Your task to perform on an android device: Open calendar and show me the first week of next month Image 0: 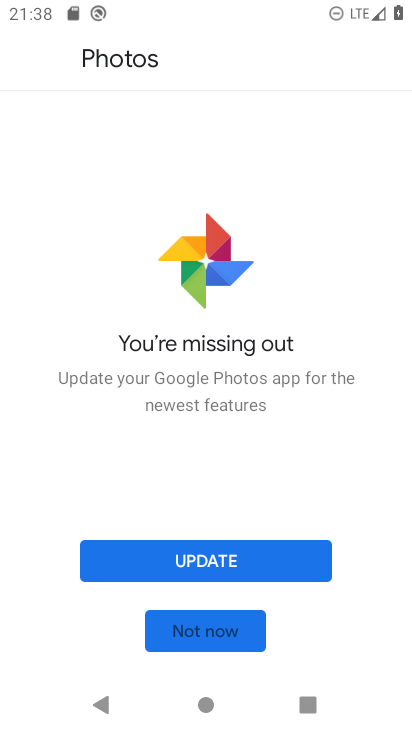
Step 0: press home button
Your task to perform on an android device: Open calendar and show me the first week of next month Image 1: 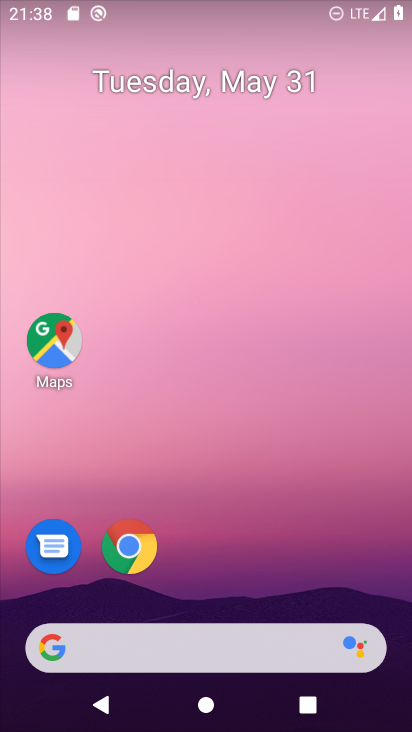
Step 1: drag from (374, 602) to (314, 215)
Your task to perform on an android device: Open calendar and show me the first week of next month Image 2: 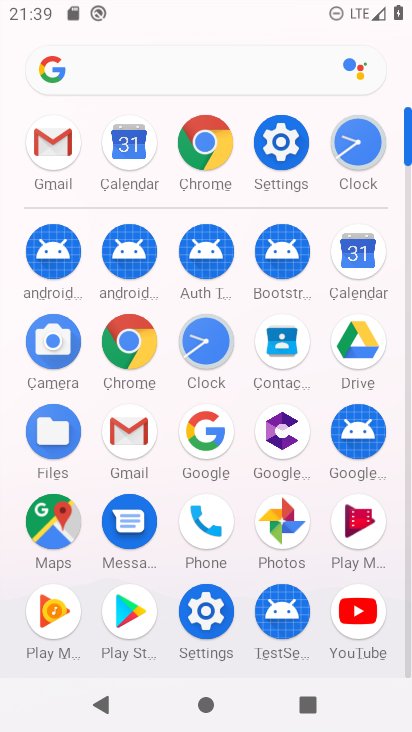
Step 2: click (356, 264)
Your task to perform on an android device: Open calendar and show me the first week of next month Image 3: 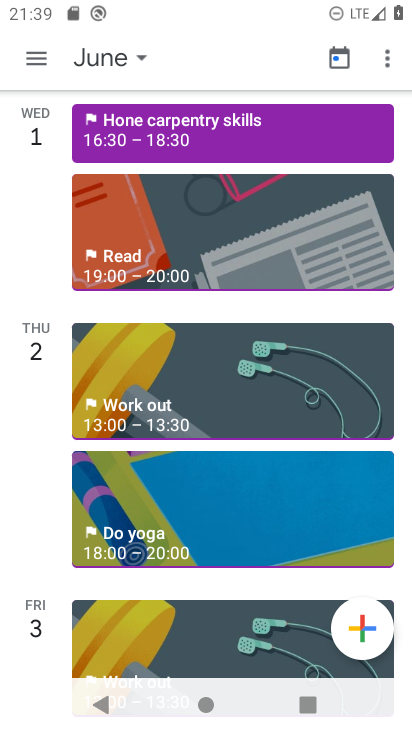
Step 3: click (134, 56)
Your task to perform on an android device: Open calendar and show me the first week of next month Image 4: 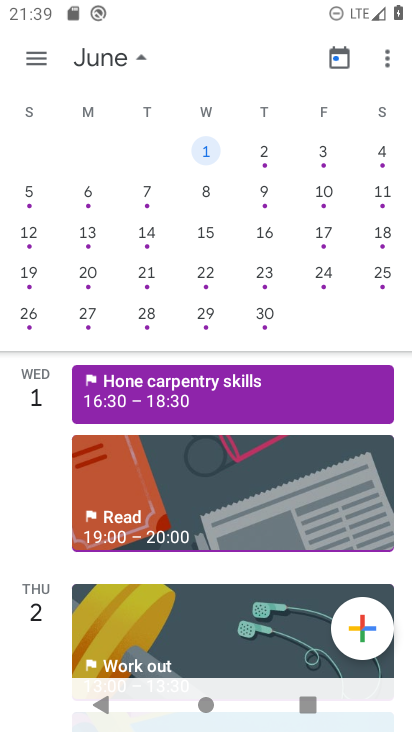
Step 4: click (261, 150)
Your task to perform on an android device: Open calendar and show me the first week of next month Image 5: 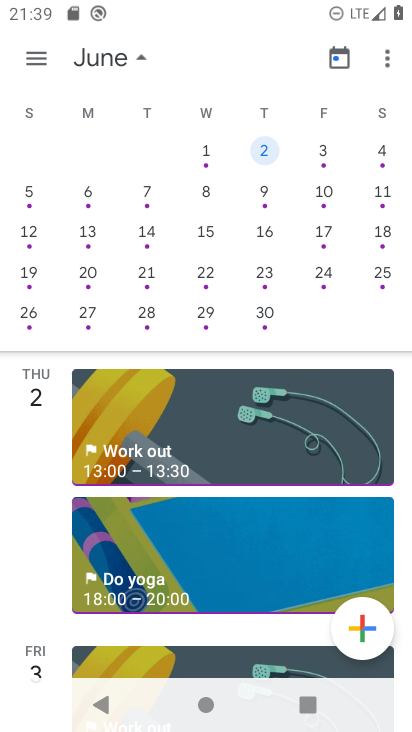
Step 5: click (31, 62)
Your task to perform on an android device: Open calendar and show me the first week of next month Image 6: 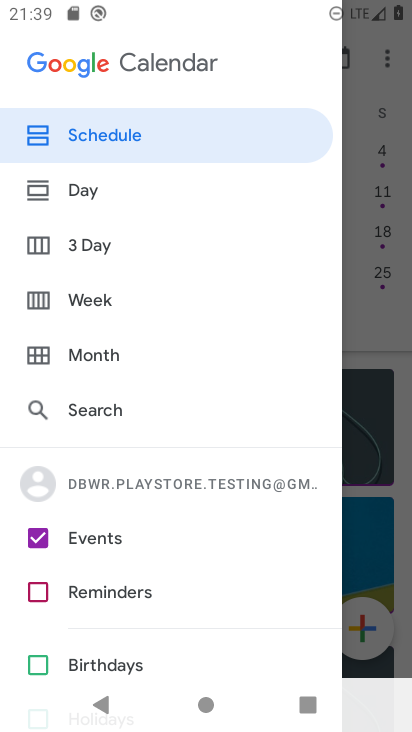
Step 6: click (91, 299)
Your task to perform on an android device: Open calendar and show me the first week of next month Image 7: 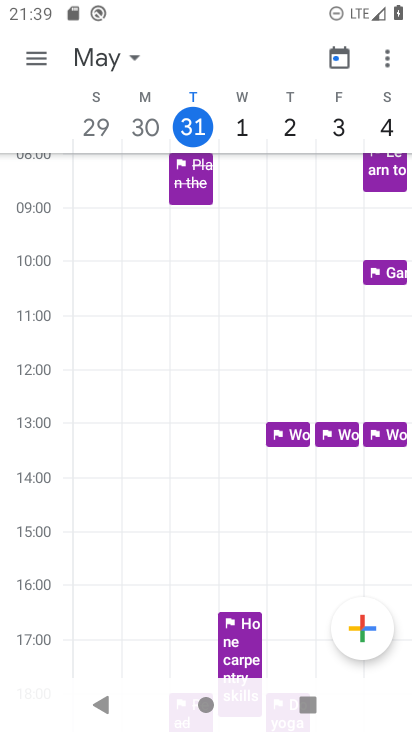
Step 7: task complete